Your task to perform on an android device: Go to ESPN.com Image 0: 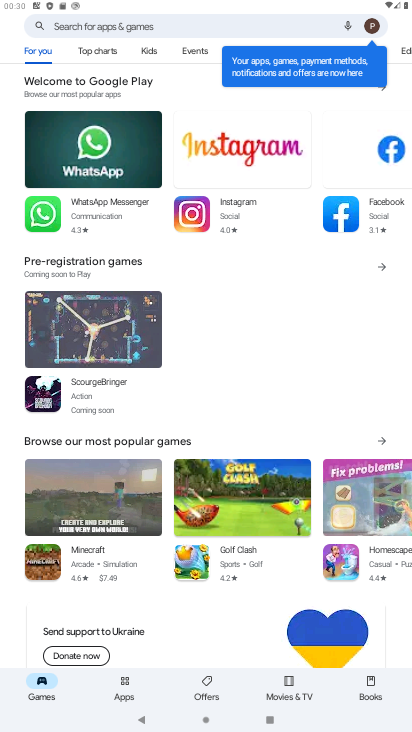
Step 0: press home button
Your task to perform on an android device: Go to ESPN.com Image 1: 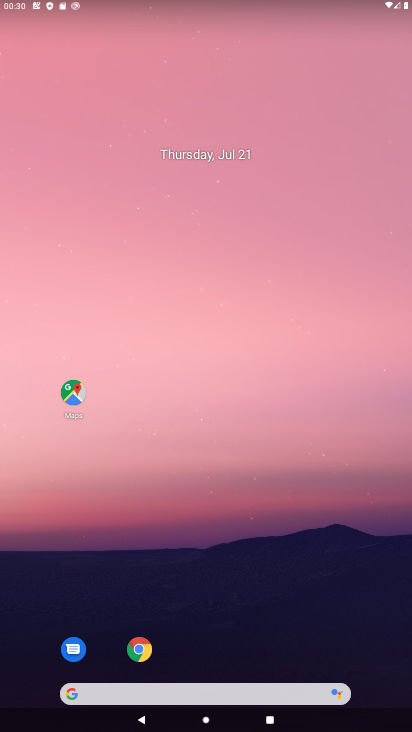
Step 1: drag from (238, 723) to (214, 44)
Your task to perform on an android device: Go to ESPN.com Image 2: 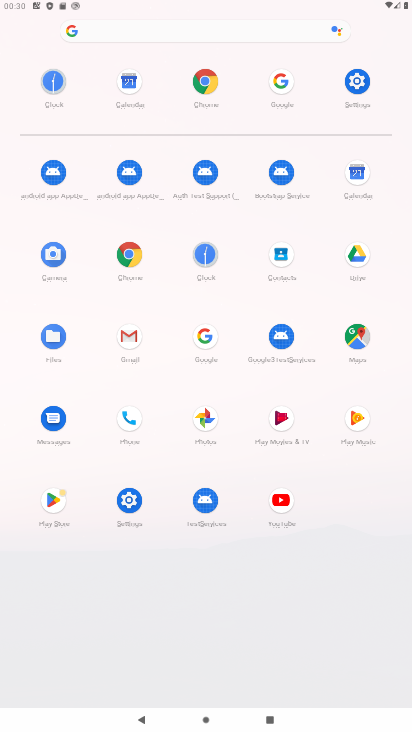
Step 2: click (131, 257)
Your task to perform on an android device: Go to ESPN.com Image 3: 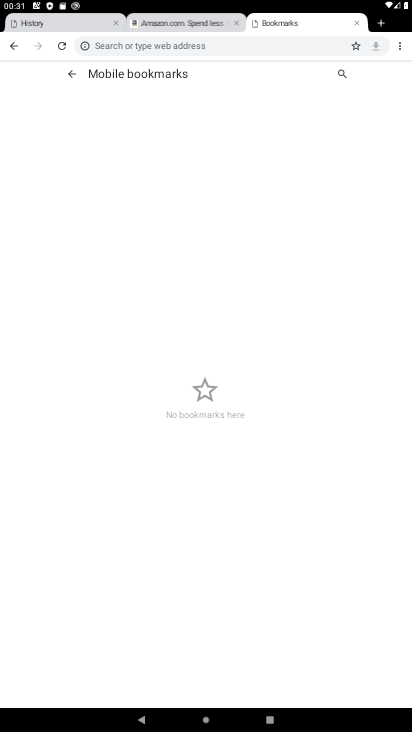
Step 3: click (398, 45)
Your task to perform on an android device: Go to ESPN.com Image 4: 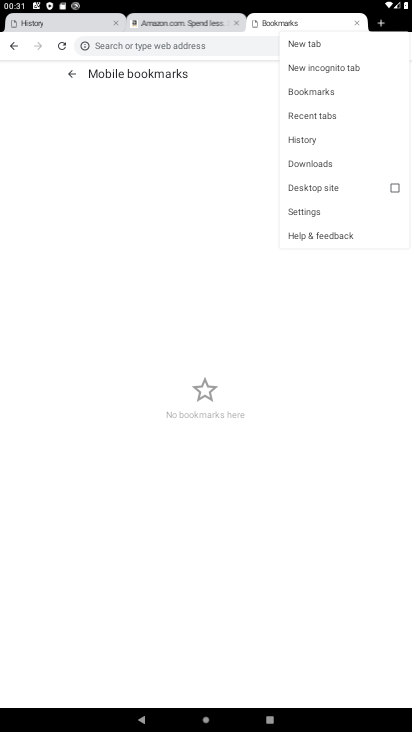
Step 4: click (316, 44)
Your task to perform on an android device: Go to ESPN.com Image 5: 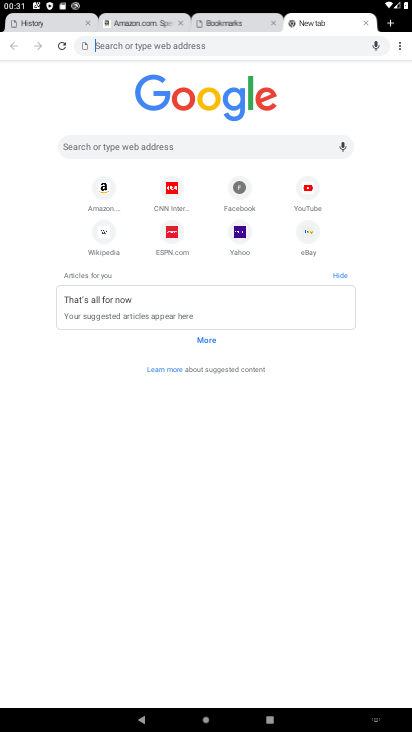
Step 5: click (170, 234)
Your task to perform on an android device: Go to ESPN.com Image 6: 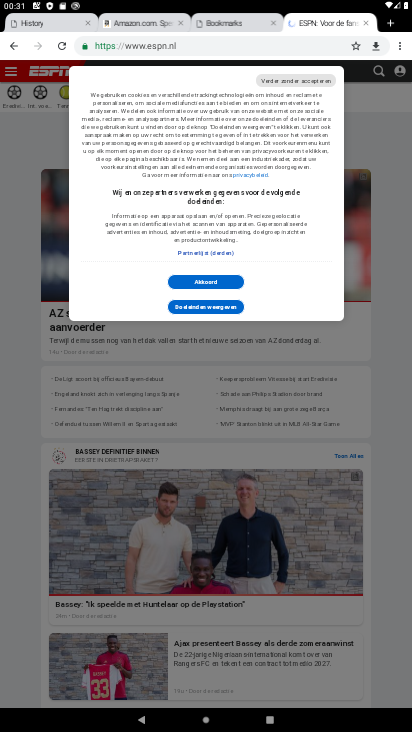
Step 6: click (213, 281)
Your task to perform on an android device: Go to ESPN.com Image 7: 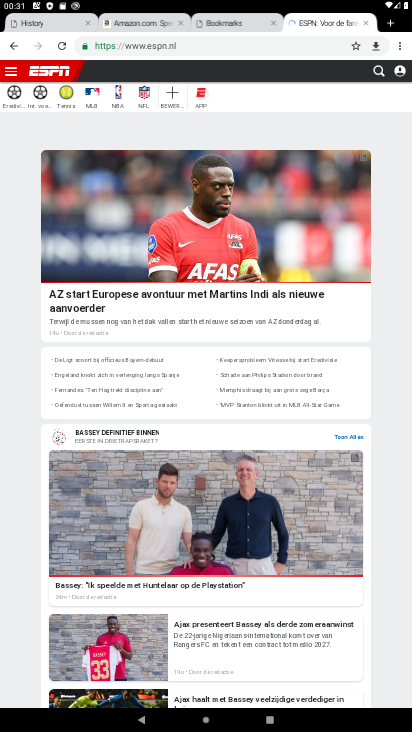
Step 7: task complete